Your task to perform on an android device: add a contact Image 0: 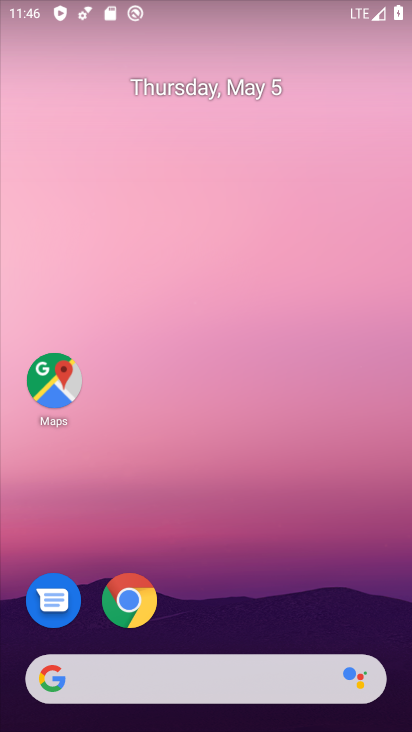
Step 0: drag from (253, 325) to (222, 130)
Your task to perform on an android device: add a contact Image 1: 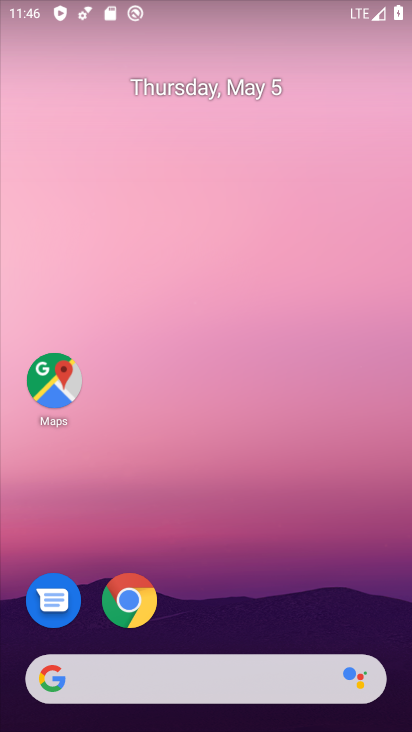
Step 1: drag from (294, 621) to (238, 119)
Your task to perform on an android device: add a contact Image 2: 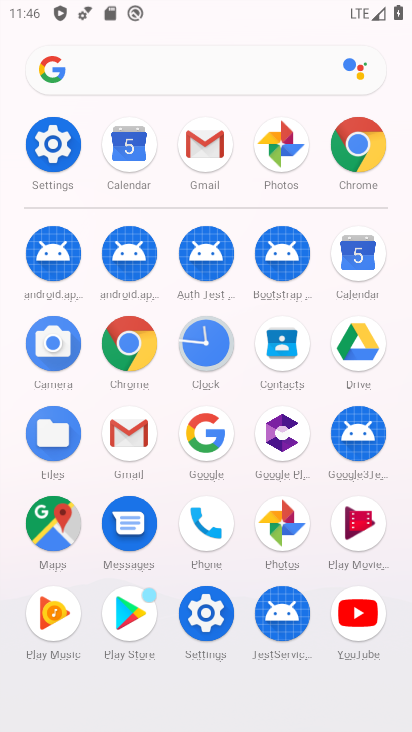
Step 2: click (282, 352)
Your task to perform on an android device: add a contact Image 3: 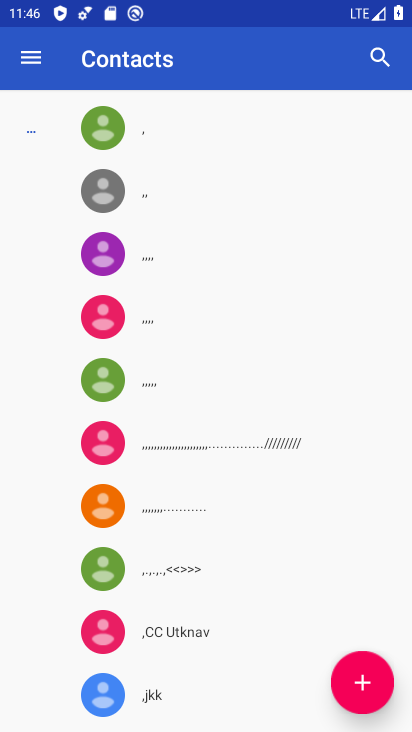
Step 3: click (357, 684)
Your task to perform on an android device: add a contact Image 4: 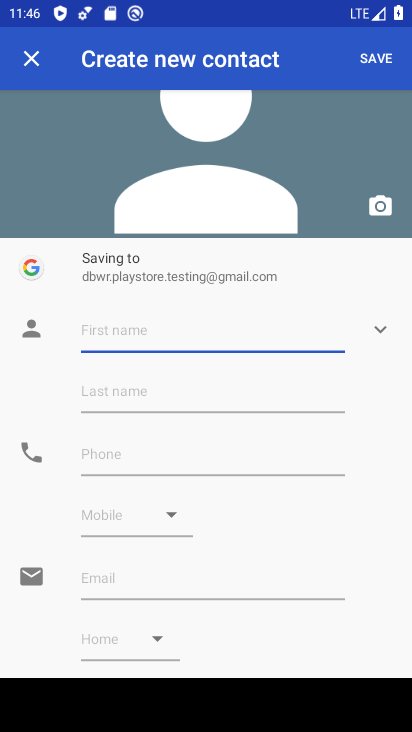
Step 4: type "julio"
Your task to perform on an android device: add a contact Image 5: 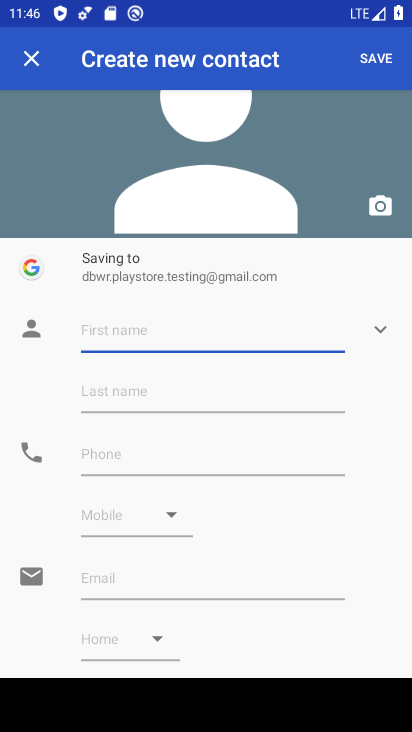
Step 5: click (367, 67)
Your task to perform on an android device: add a contact Image 6: 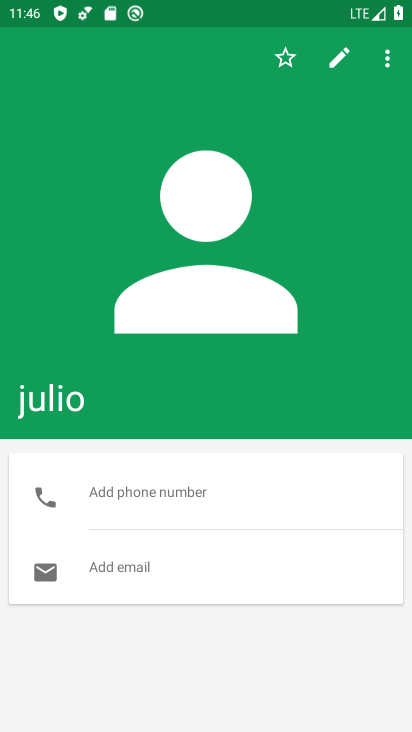
Step 6: task complete